Your task to perform on an android device: toggle javascript in the chrome app Image 0: 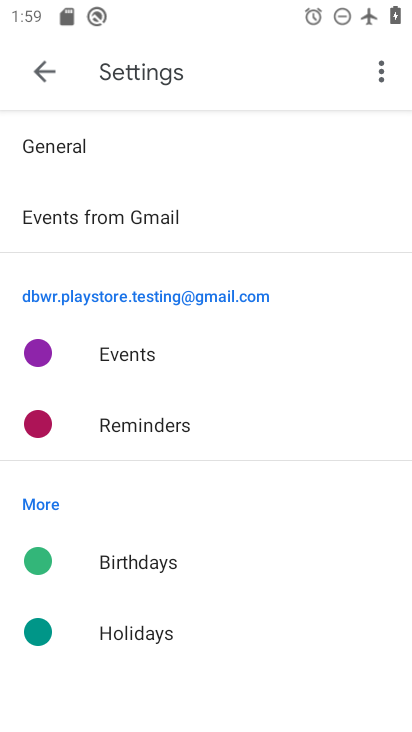
Step 0: press home button
Your task to perform on an android device: toggle javascript in the chrome app Image 1: 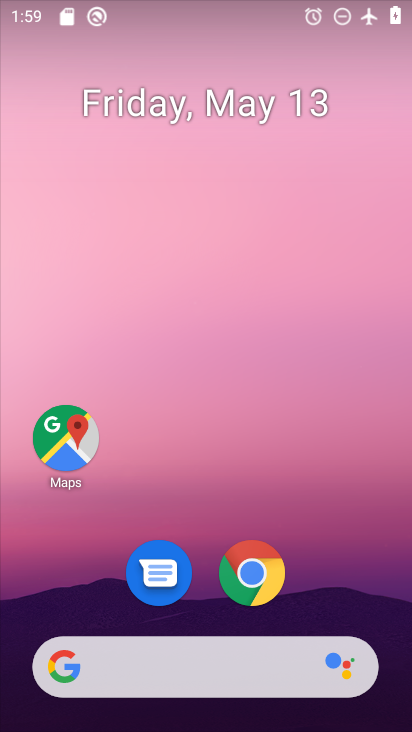
Step 1: click (270, 572)
Your task to perform on an android device: toggle javascript in the chrome app Image 2: 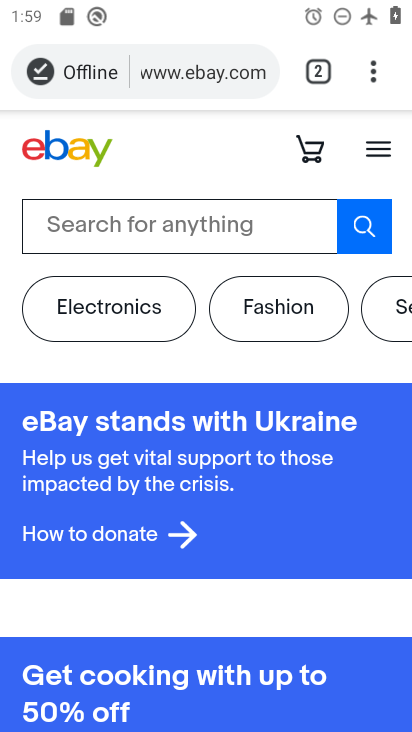
Step 2: click (375, 70)
Your task to perform on an android device: toggle javascript in the chrome app Image 3: 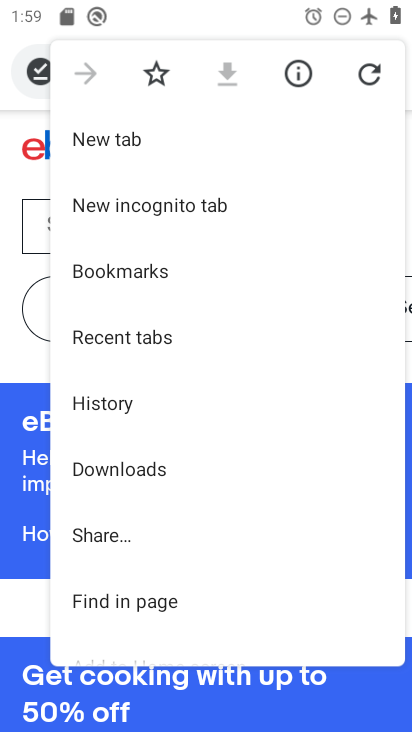
Step 3: drag from (237, 620) to (269, 257)
Your task to perform on an android device: toggle javascript in the chrome app Image 4: 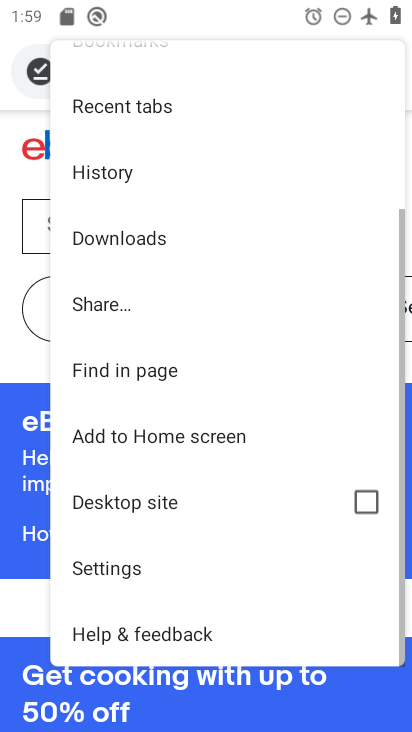
Step 4: click (116, 568)
Your task to perform on an android device: toggle javascript in the chrome app Image 5: 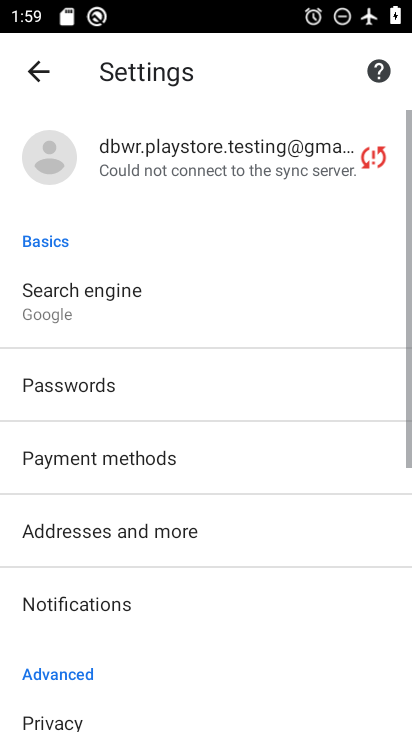
Step 5: drag from (201, 675) to (193, 30)
Your task to perform on an android device: toggle javascript in the chrome app Image 6: 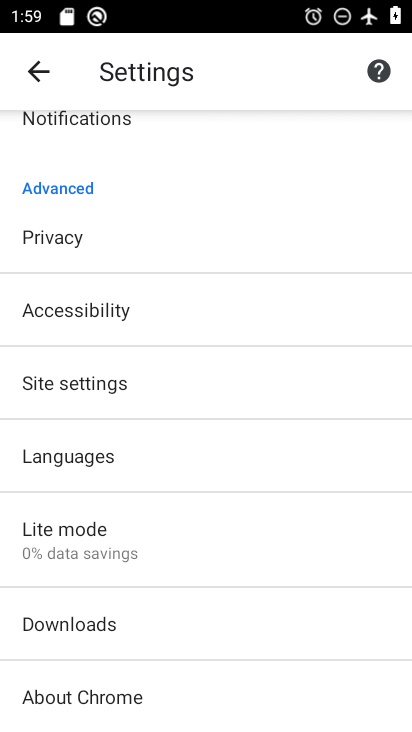
Step 6: drag from (244, 675) to (180, 18)
Your task to perform on an android device: toggle javascript in the chrome app Image 7: 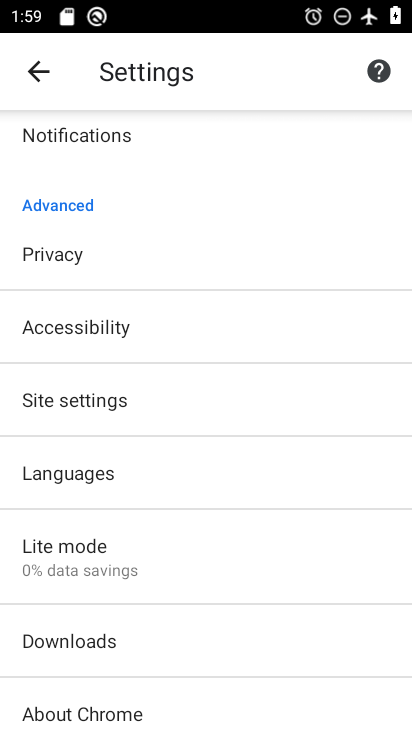
Step 7: drag from (214, 698) to (276, 126)
Your task to perform on an android device: toggle javascript in the chrome app Image 8: 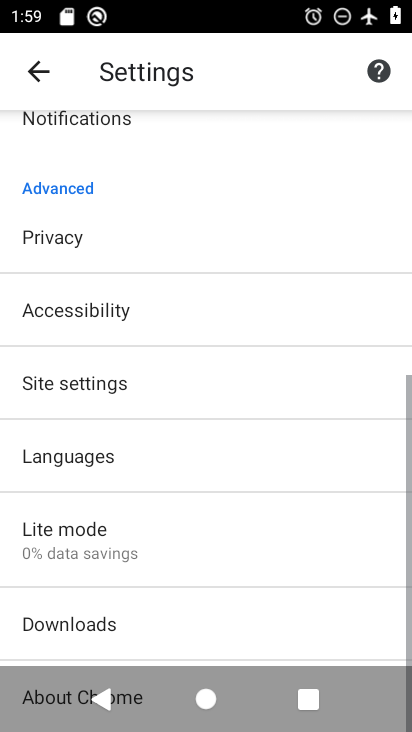
Step 8: click (82, 382)
Your task to perform on an android device: toggle javascript in the chrome app Image 9: 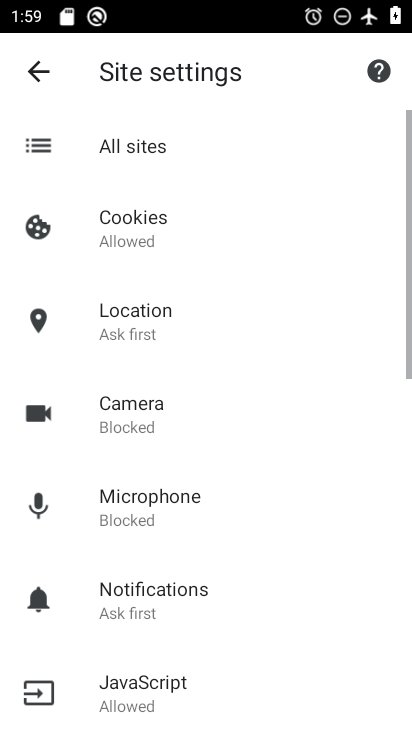
Step 9: drag from (216, 656) to (300, 113)
Your task to perform on an android device: toggle javascript in the chrome app Image 10: 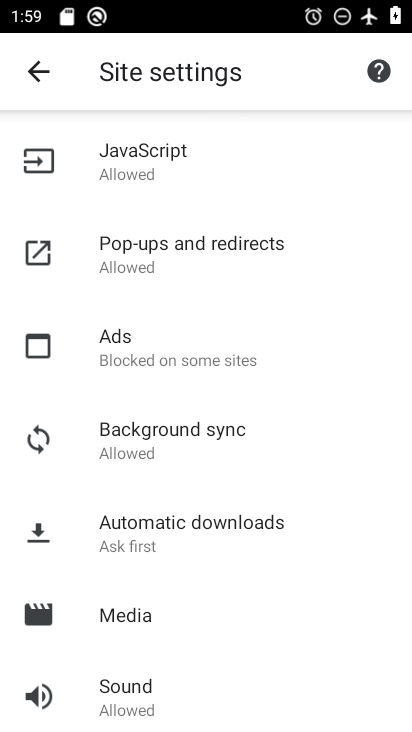
Step 10: click (176, 160)
Your task to perform on an android device: toggle javascript in the chrome app Image 11: 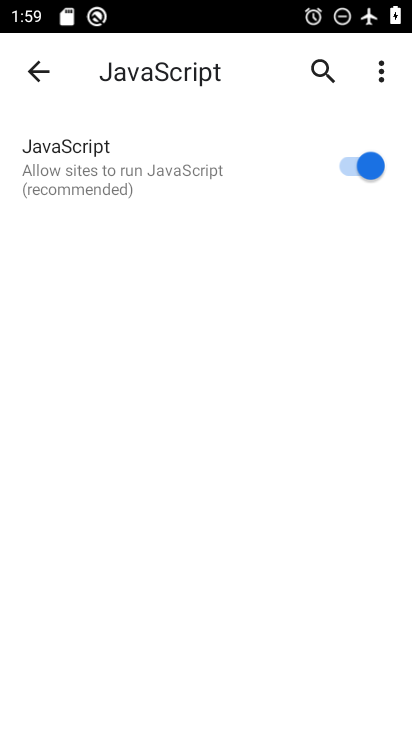
Step 11: click (381, 173)
Your task to perform on an android device: toggle javascript in the chrome app Image 12: 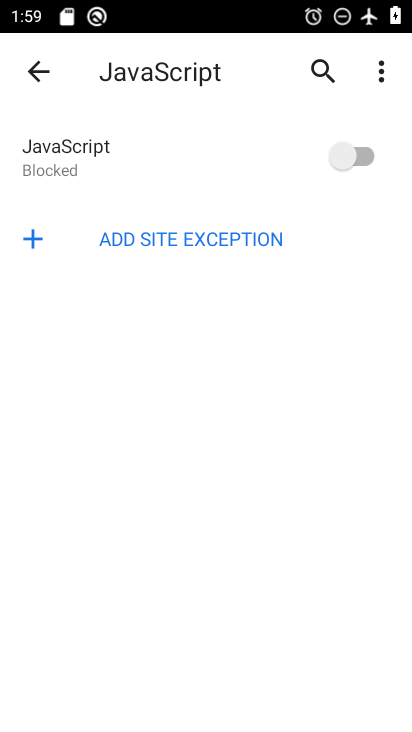
Step 12: task complete